Your task to perform on an android device: turn on showing notifications on the lock screen Image 0: 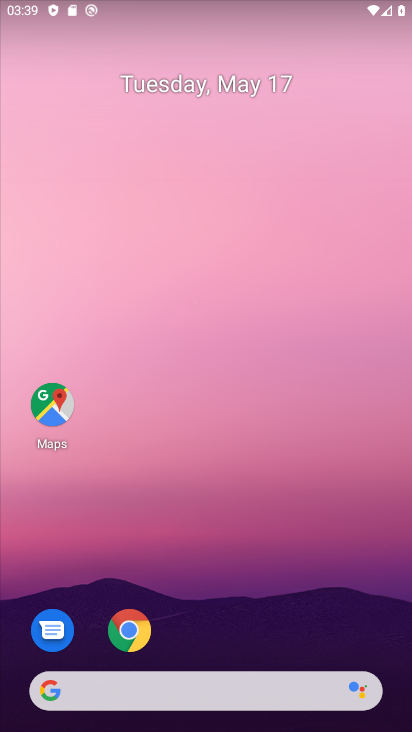
Step 0: drag from (183, 645) to (304, 158)
Your task to perform on an android device: turn on showing notifications on the lock screen Image 1: 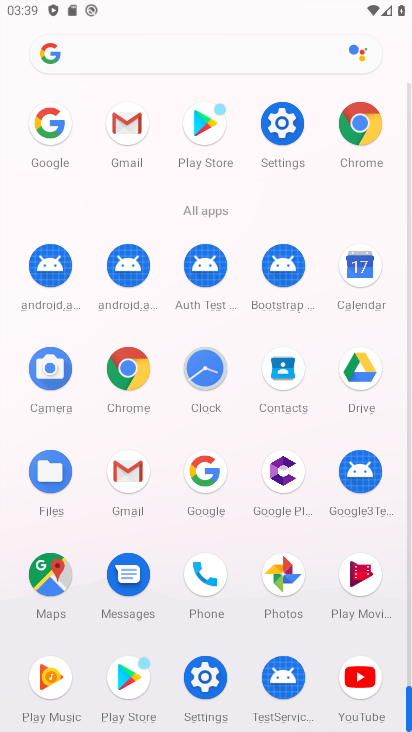
Step 1: click (212, 670)
Your task to perform on an android device: turn on showing notifications on the lock screen Image 2: 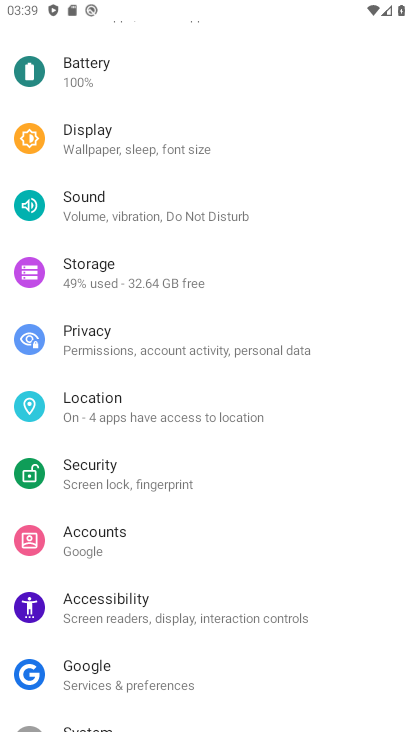
Step 2: drag from (321, 170) to (276, 477)
Your task to perform on an android device: turn on showing notifications on the lock screen Image 3: 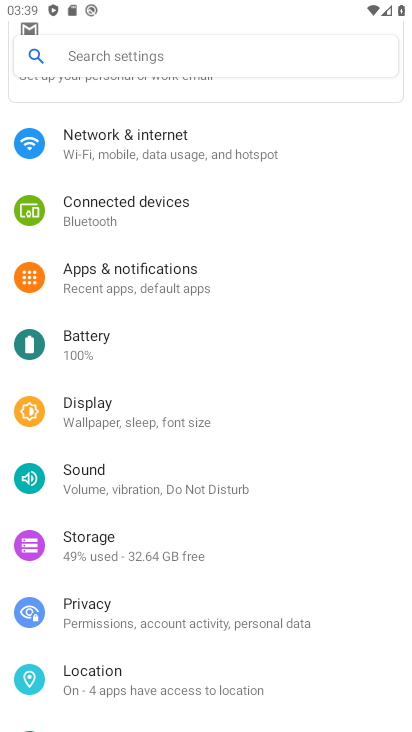
Step 3: click (211, 278)
Your task to perform on an android device: turn on showing notifications on the lock screen Image 4: 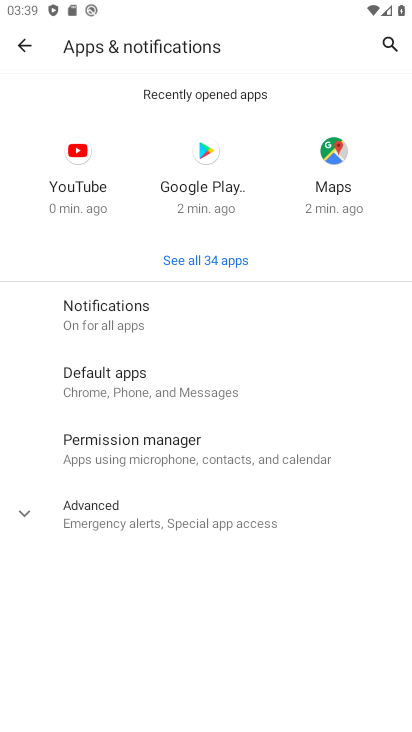
Step 4: click (196, 322)
Your task to perform on an android device: turn on showing notifications on the lock screen Image 5: 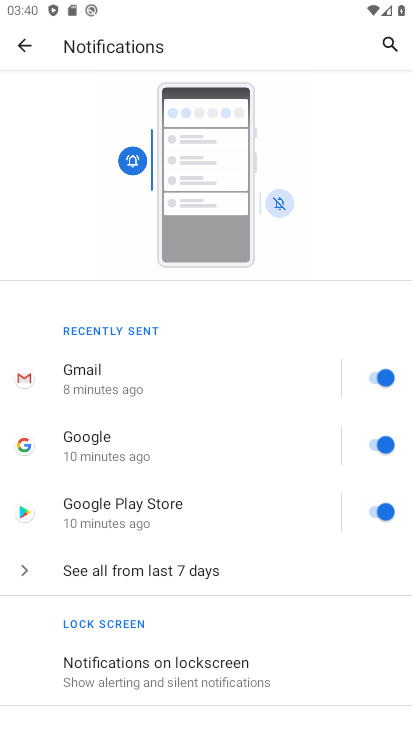
Step 5: drag from (256, 669) to (303, 410)
Your task to perform on an android device: turn on showing notifications on the lock screen Image 6: 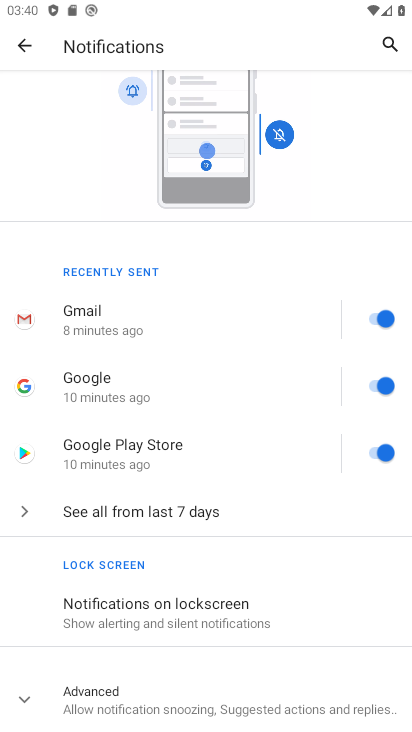
Step 6: click (220, 621)
Your task to perform on an android device: turn on showing notifications on the lock screen Image 7: 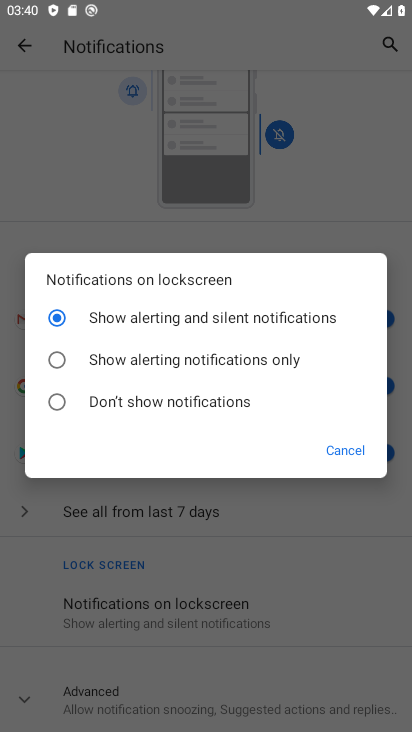
Step 7: task complete